Your task to perform on an android device: open a bookmark in the chrome app Image 0: 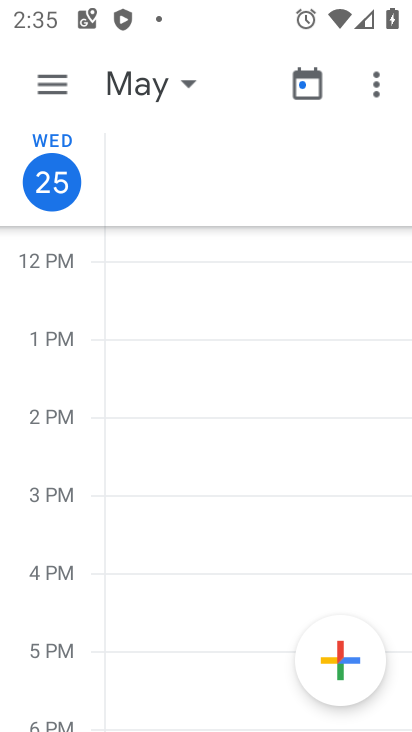
Step 0: press home button
Your task to perform on an android device: open a bookmark in the chrome app Image 1: 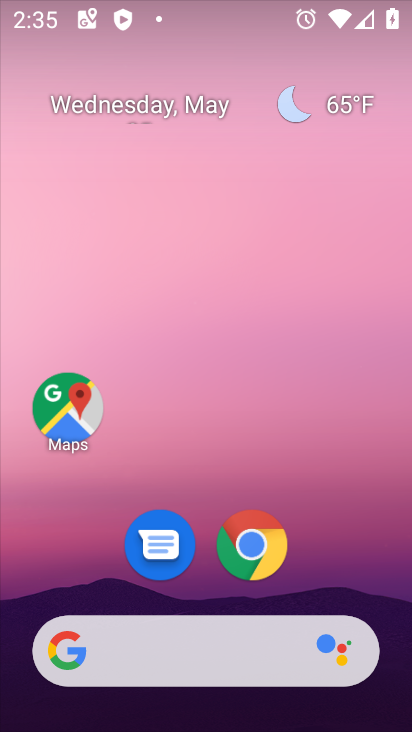
Step 1: click (229, 545)
Your task to perform on an android device: open a bookmark in the chrome app Image 2: 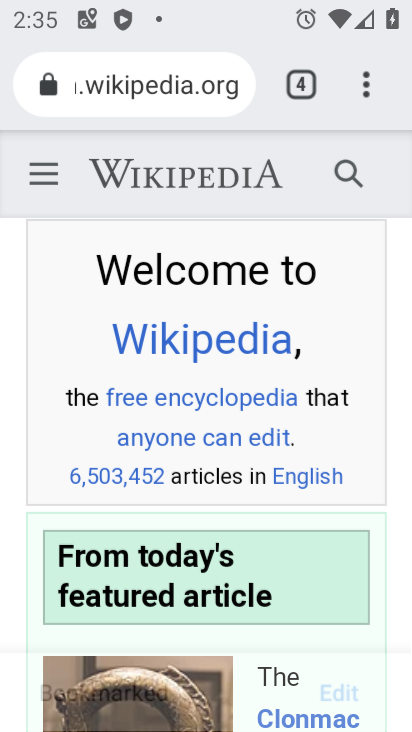
Step 2: click (369, 69)
Your task to perform on an android device: open a bookmark in the chrome app Image 3: 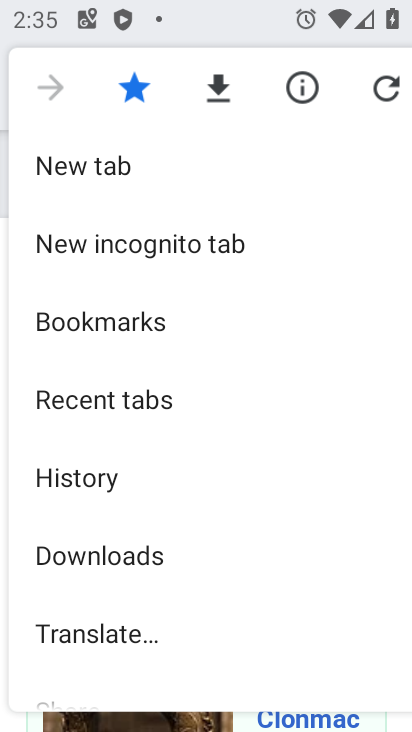
Step 3: click (149, 332)
Your task to perform on an android device: open a bookmark in the chrome app Image 4: 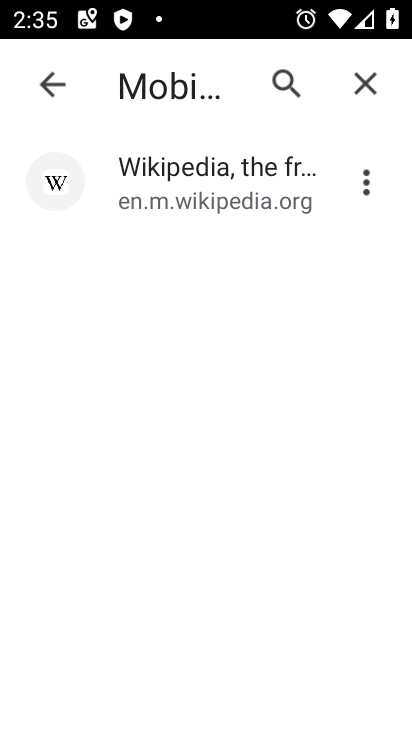
Step 4: click (246, 182)
Your task to perform on an android device: open a bookmark in the chrome app Image 5: 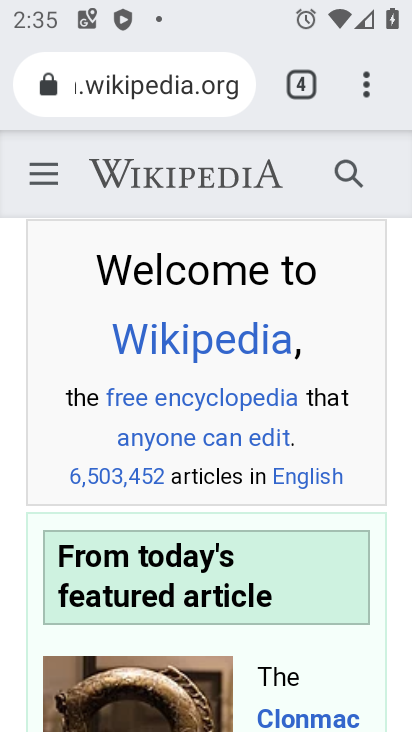
Step 5: task complete